Your task to perform on an android device: turn vacation reply on in the gmail app Image 0: 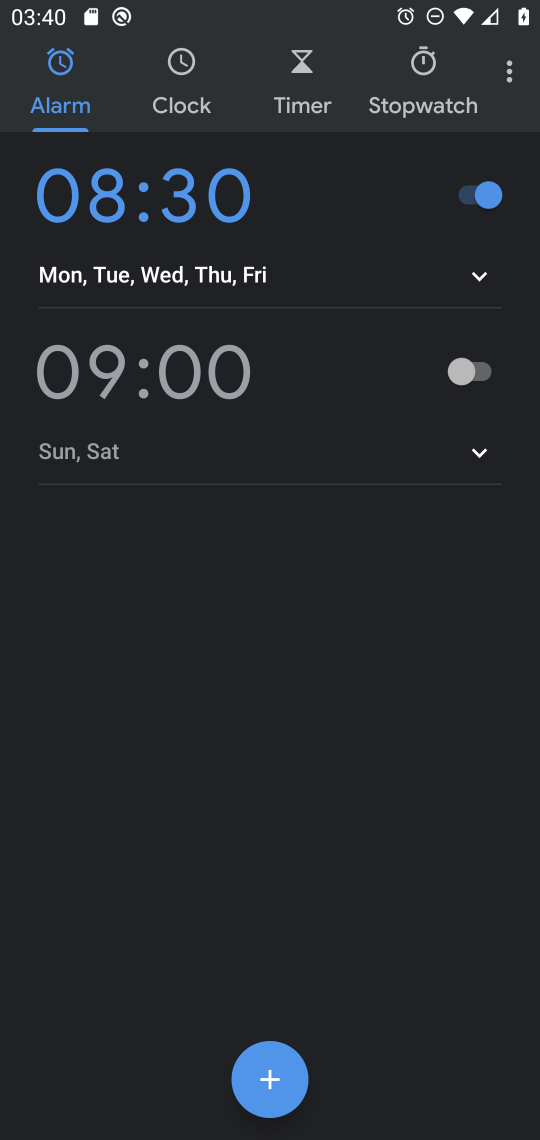
Step 0: press home button
Your task to perform on an android device: turn vacation reply on in the gmail app Image 1: 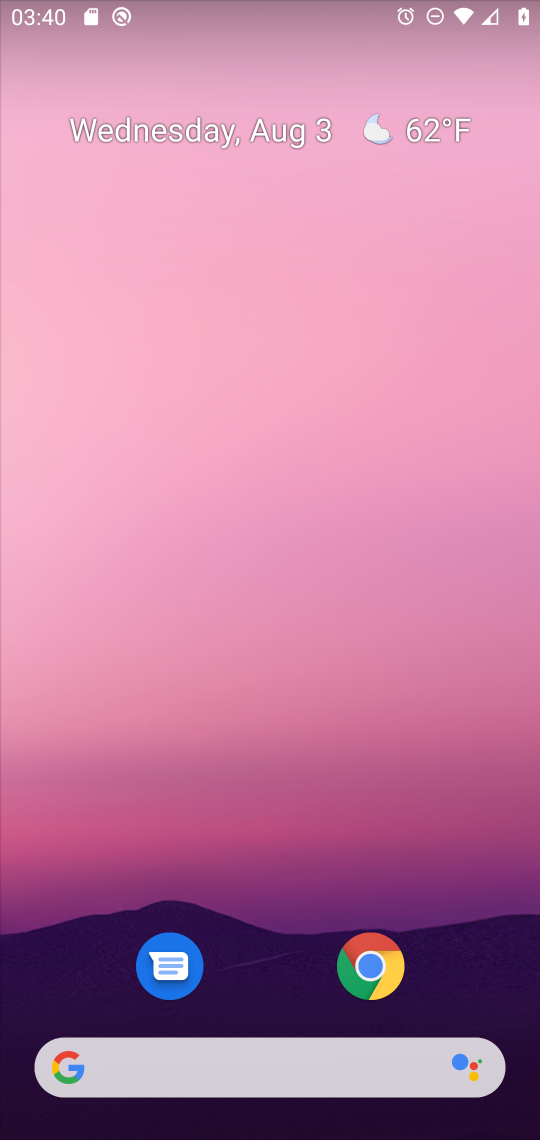
Step 1: drag from (256, 859) to (294, 307)
Your task to perform on an android device: turn vacation reply on in the gmail app Image 2: 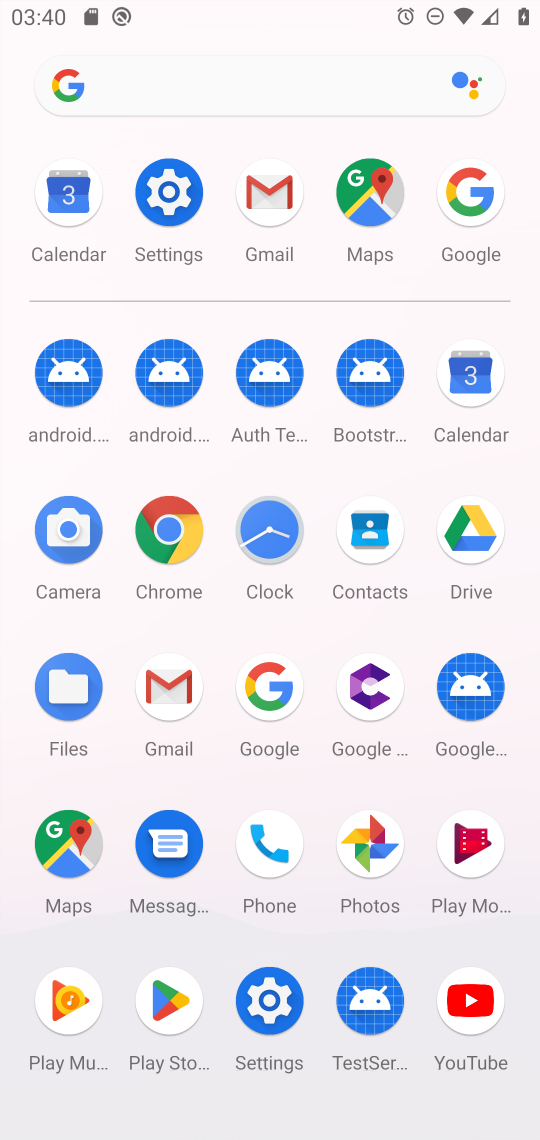
Step 2: click (252, 220)
Your task to perform on an android device: turn vacation reply on in the gmail app Image 3: 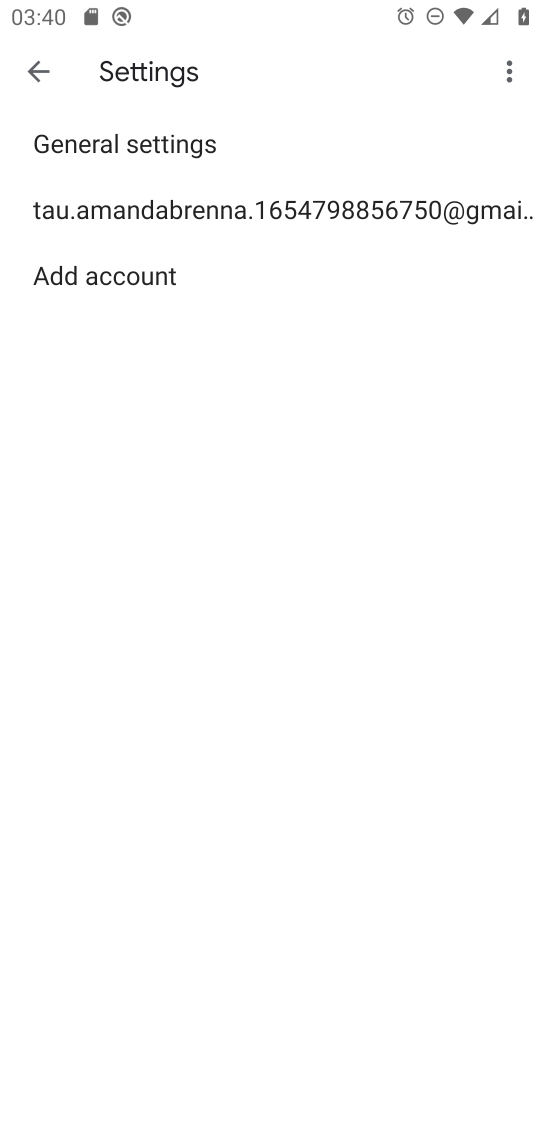
Step 3: click (156, 226)
Your task to perform on an android device: turn vacation reply on in the gmail app Image 4: 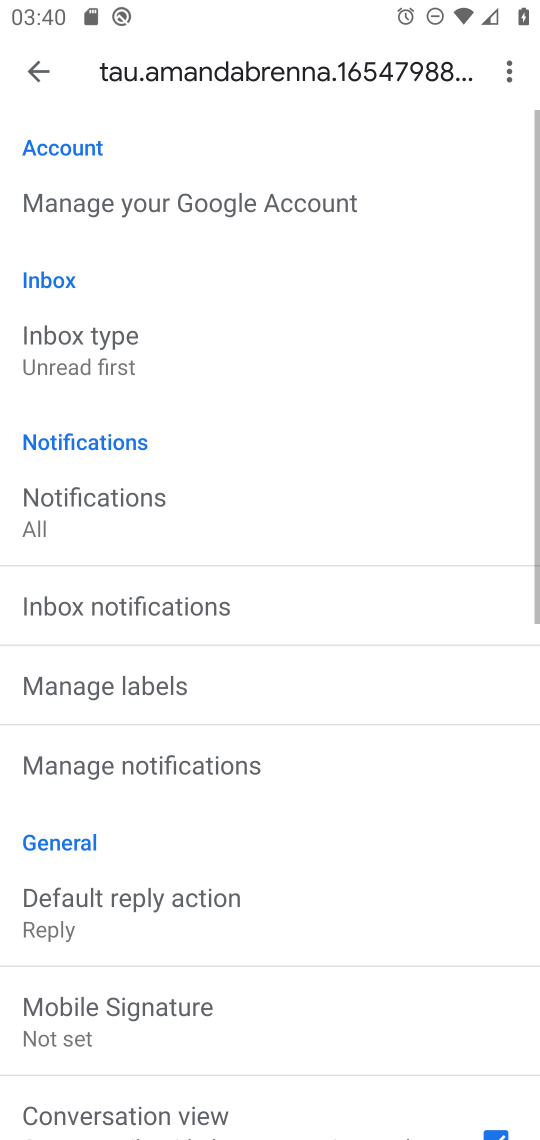
Step 4: drag from (241, 1053) to (231, 411)
Your task to perform on an android device: turn vacation reply on in the gmail app Image 5: 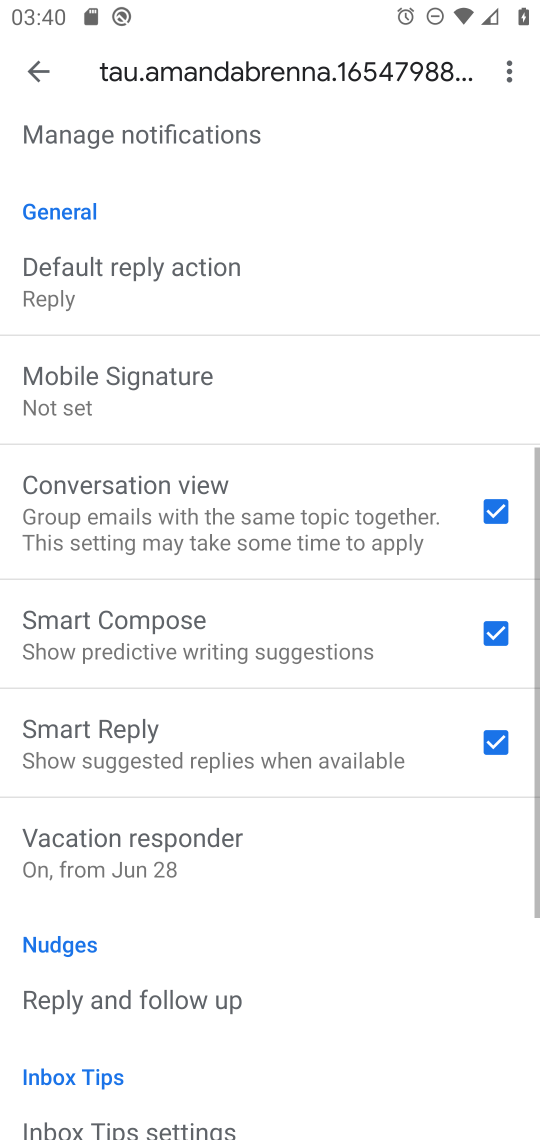
Step 5: click (201, 874)
Your task to perform on an android device: turn vacation reply on in the gmail app Image 6: 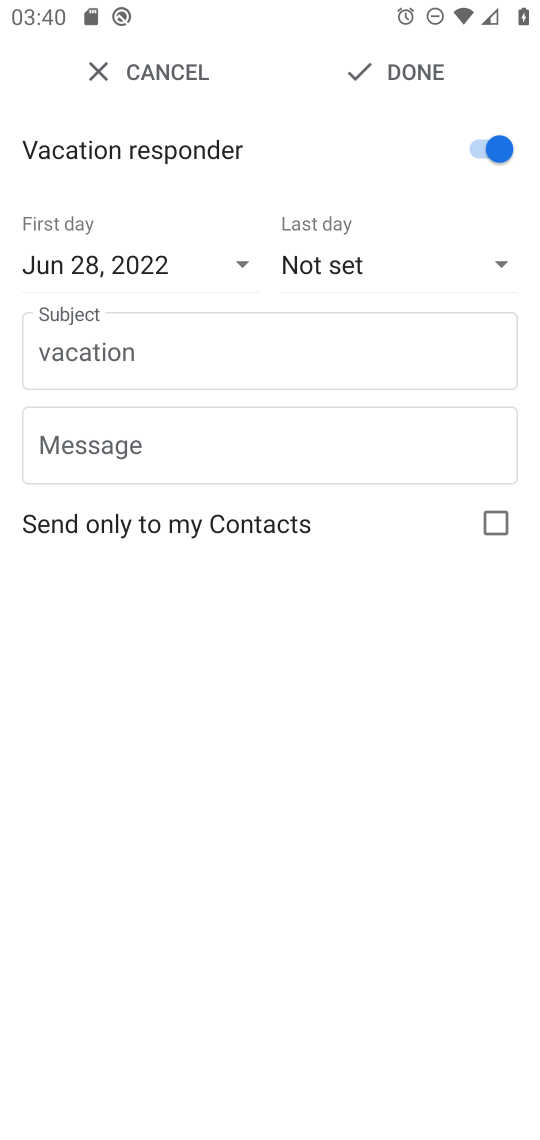
Step 6: task complete